Your task to perform on an android device: turn on priority inbox in the gmail app Image 0: 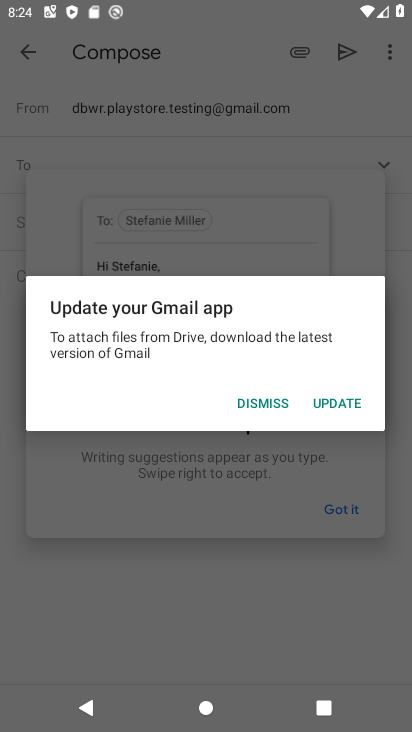
Step 0: click (272, 399)
Your task to perform on an android device: turn on priority inbox in the gmail app Image 1: 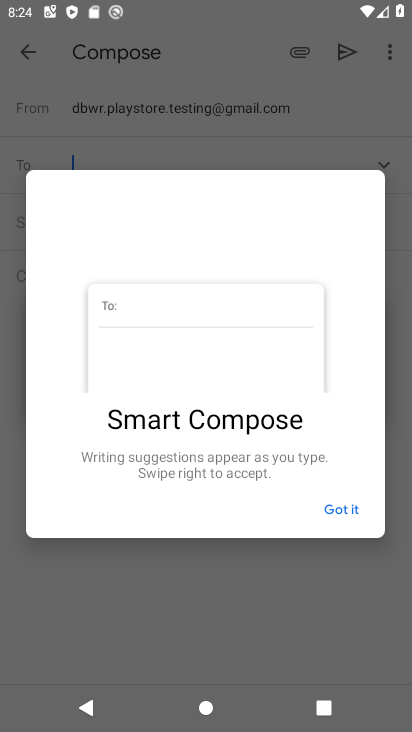
Step 1: click (342, 514)
Your task to perform on an android device: turn on priority inbox in the gmail app Image 2: 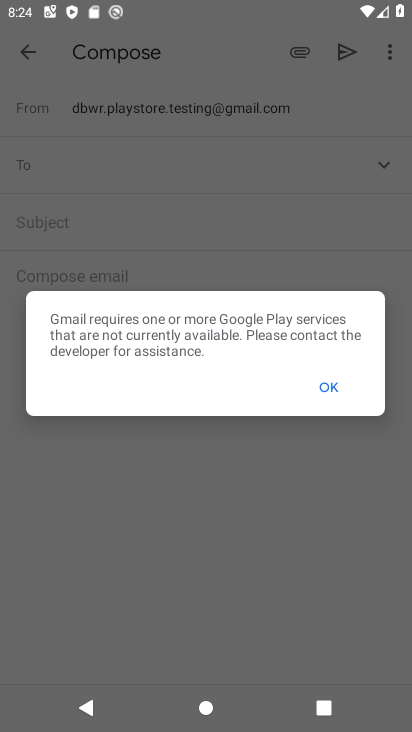
Step 2: click (23, 43)
Your task to perform on an android device: turn on priority inbox in the gmail app Image 3: 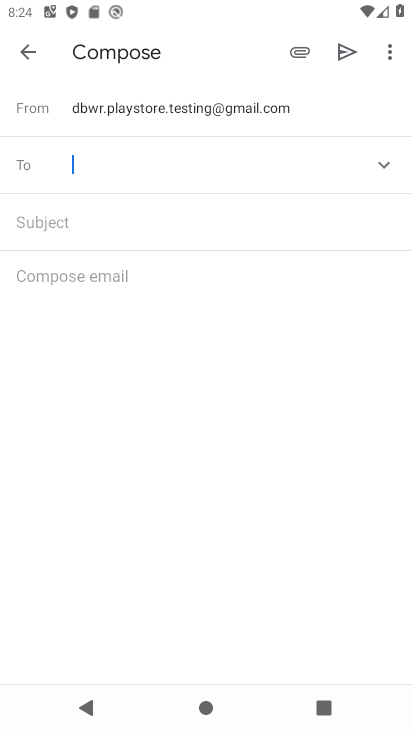
Step 3: click (8, 55)
Your task to perform on an android device: turn on priority inbox in the gmail app Image 4: 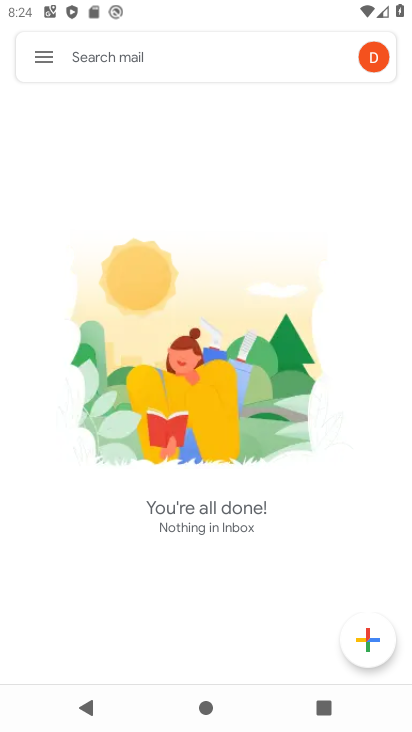
Step 4: click (48, 70)
Your task to perform on an android device: turn on priority inbox in the gmail app Image 5: 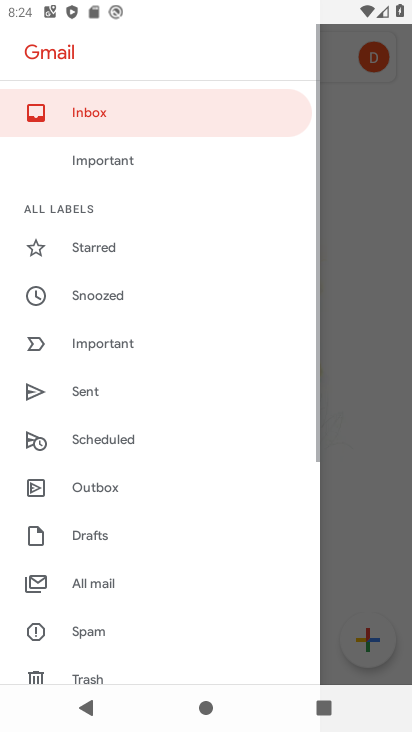
Step 5: drag from (138, 605) to (215, 12)
Your task to perform on an android device: turn on priority inbox in the gmail app Image 6: 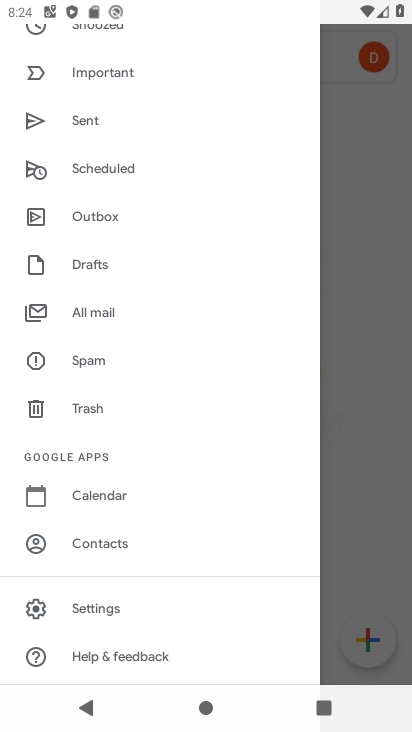
Step 6: click (112, 613)
Your task to perform on an android device: turn on priority inbox in the gmail app Image 7: 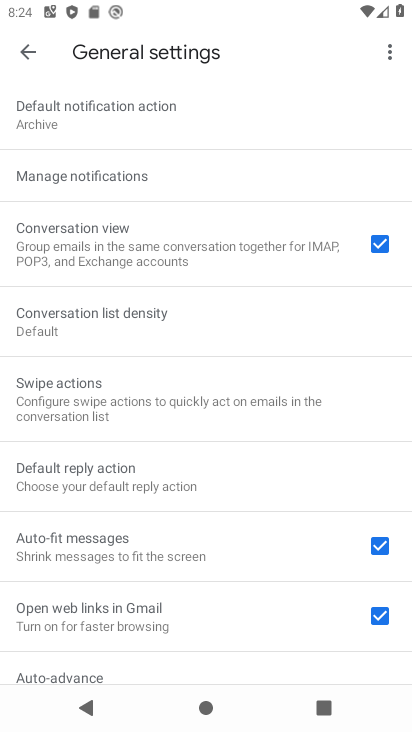
Step 7: click (34, 52)
Your task to perform on an android device: turn on priority inbox in the gmail app Image 8: 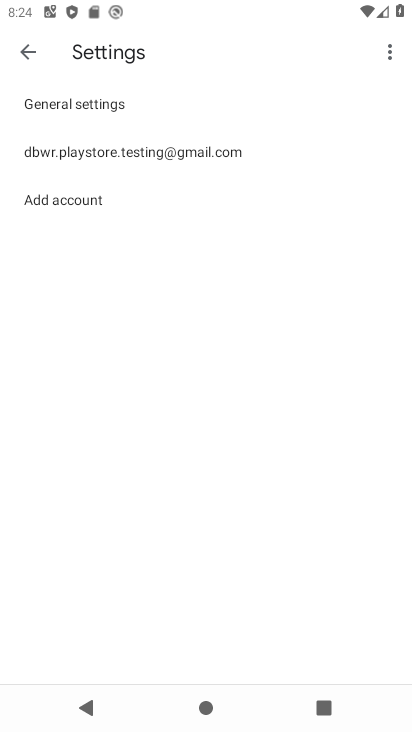
Step 8: click (99, 145)
Your task to perform on an android device: turn on priority inbox in the gmail app Image 9: 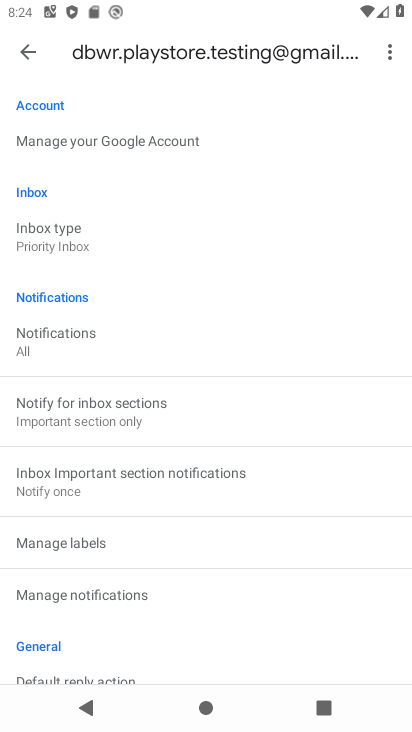
Step 9: task complete